Your task to perform on an android device: turn on location history Image 0: 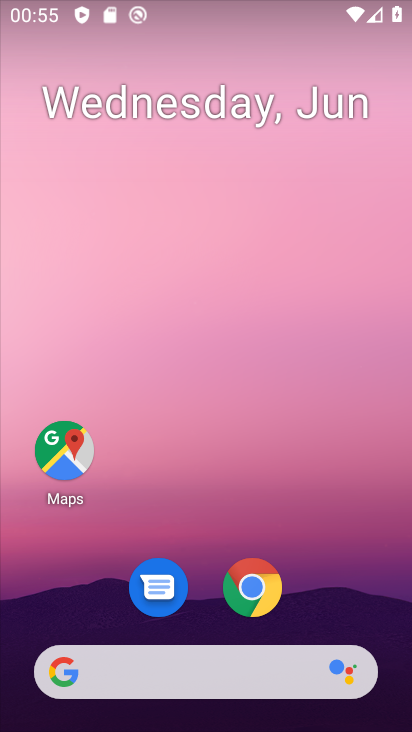
Step 0: drag from (326, 596) to (280, 111)
Your task to perform on an android device: turn on location history Image 1: 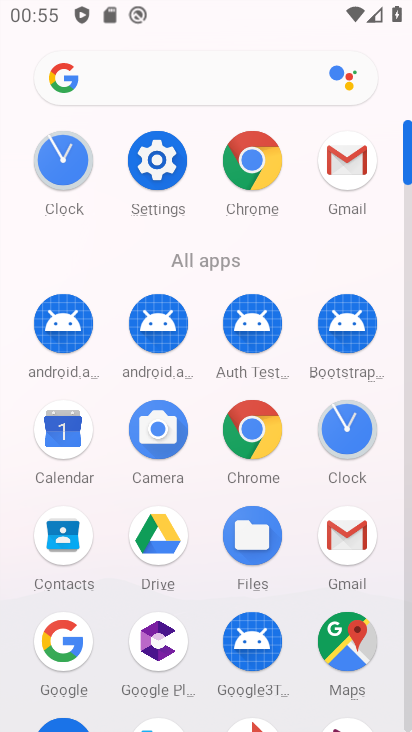
Step 1: click (162, 169)
Your task to perform on an android device: turn on location history Image 2: 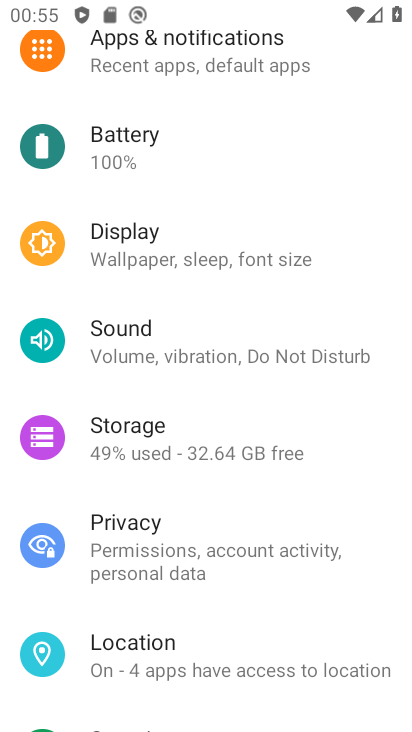
Step 2: drag from (251, 601) to (213, 119)
Your task to perform on an android device: turn on location history Image 3: 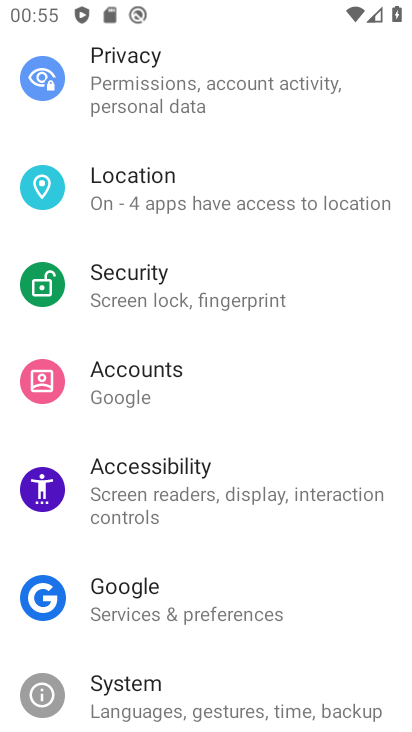
Step 3: click (179, 196)
Your task to perform on an android device: turn on location history Image 4: 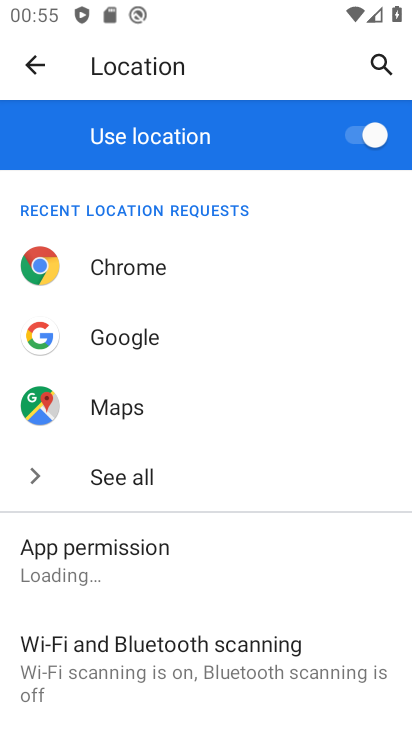
Step 4: drag from (260, 605) to (245, 125)
Your task to perform on an android device: turn on location history Image 5: 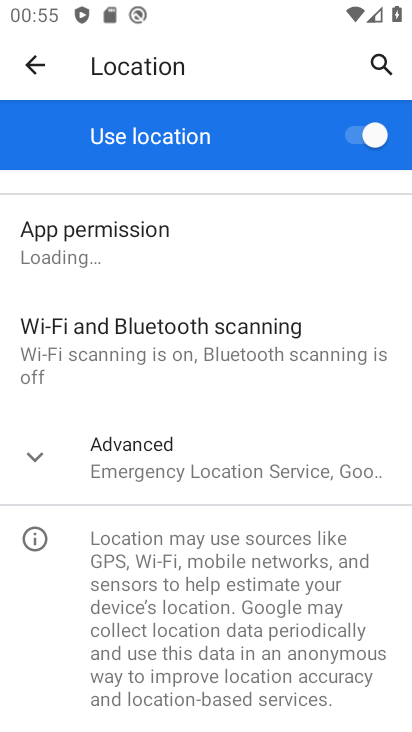
Step 5: click (188, 439)
Your task to perform on an android device: turn on location history Image 6: 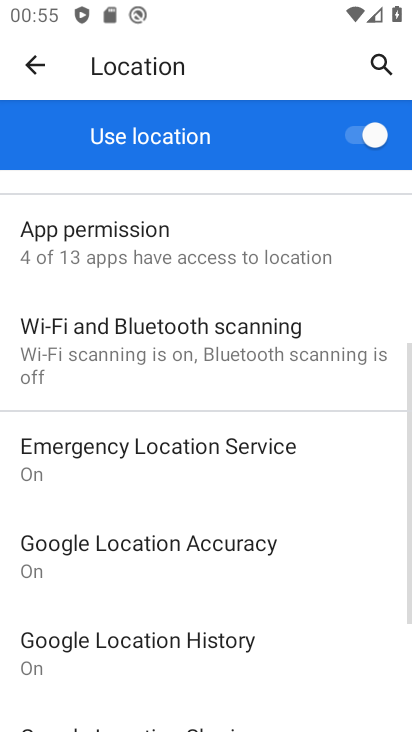
Step 6: click (225, 634)
Your task to perform on an android device: turn on location history Image 7: 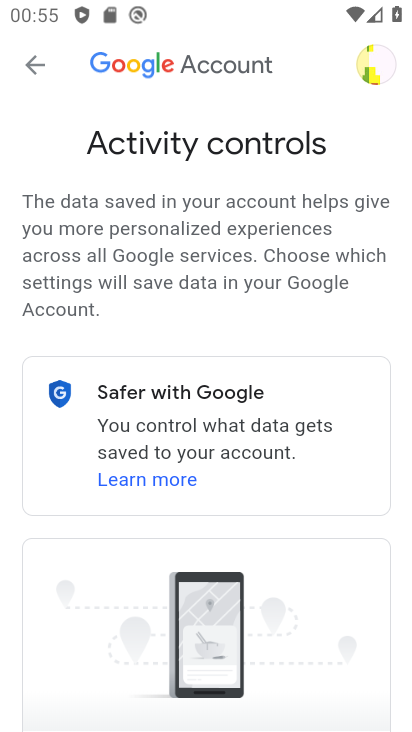
Step 7: drag from (275, 497) to (275, 8)
Your task to perform on an android device: turn on location history Image 8: 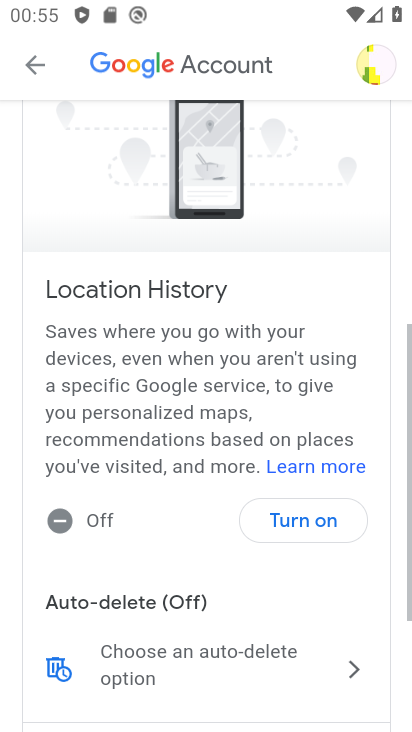
Step 8: drag from (278, 519) to (266, 232)
Your task to perform on an android device: turn on location history Image 9: 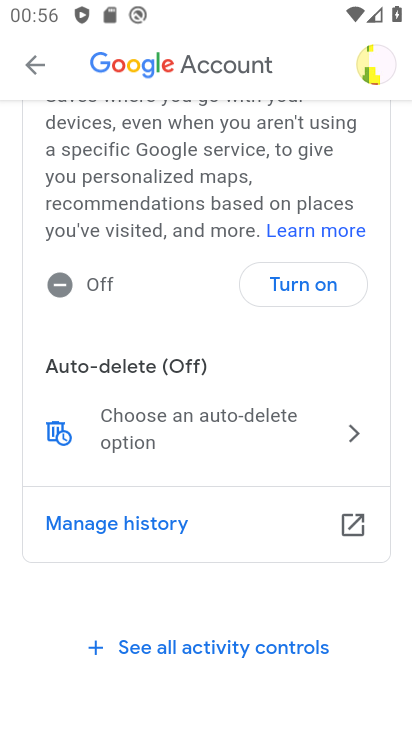
Step 9: click (309, 295)
Your task to perform on an android device: turn on location history Image 10: 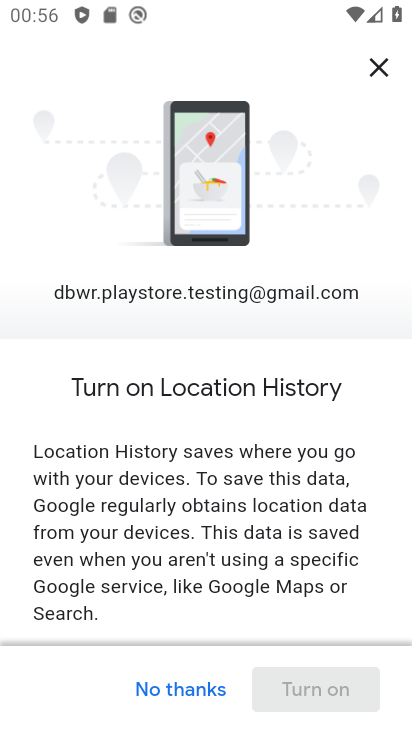
Step 10: drag from (282, 495) to (290, 8)
Your task to perform on an android device: turn on location history Image 11: 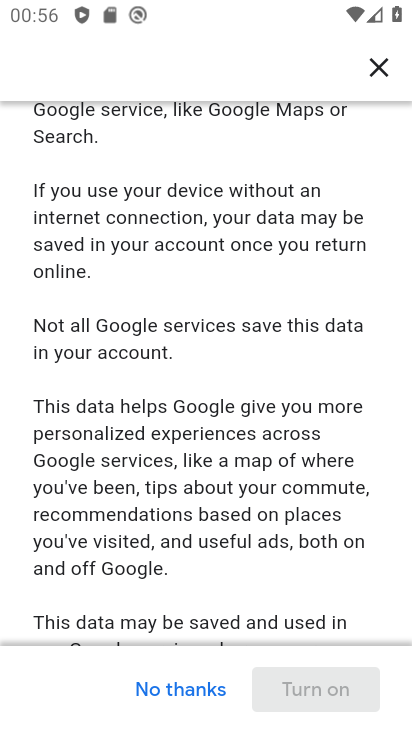
Step 11: drag from (333, 401) to (347, 4)
Your task to perform on an android device: turn on location history Image 12: 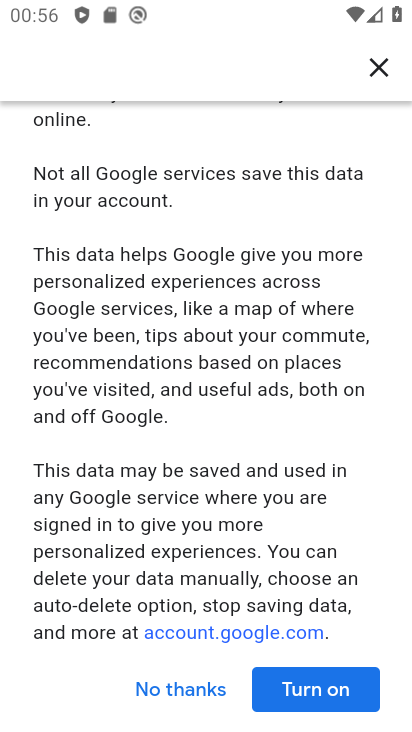
Step 12: click (359, 691)
Your task to perform on an android device: turn on location history Image 13: 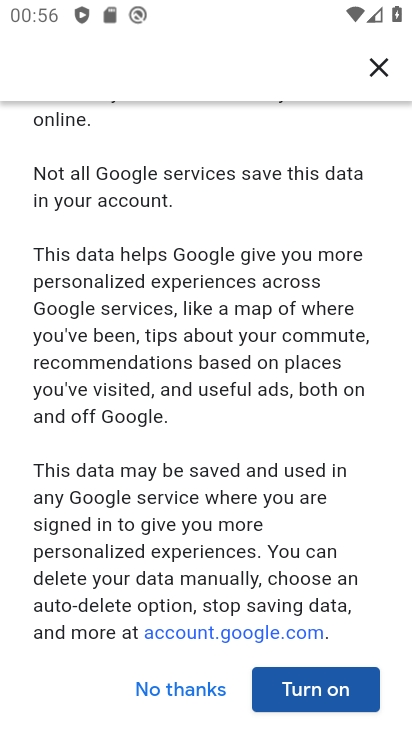
Step 13: click (333, 688)
Your task to perform on an android device: turn on location history Image 14: 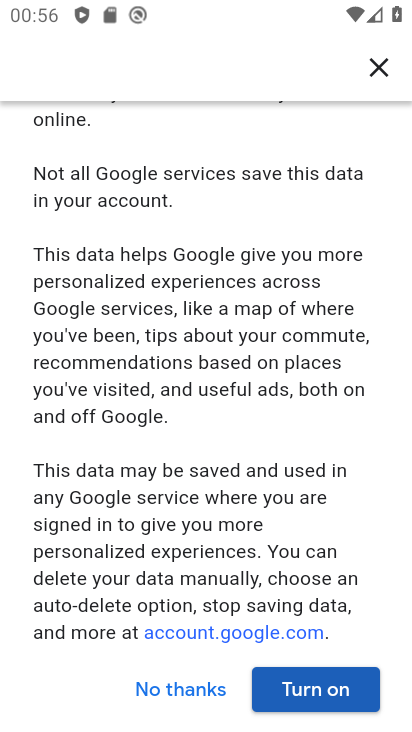
Step 14: click (304, 679)
Your task to perform on an android device: turn on location history Image 15: 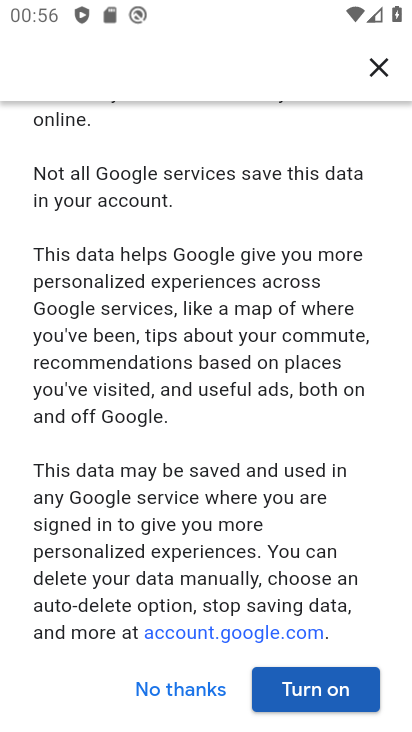
Step 15: click (313, 680)
Your task to perform on an android device: turn on location history Image 16: 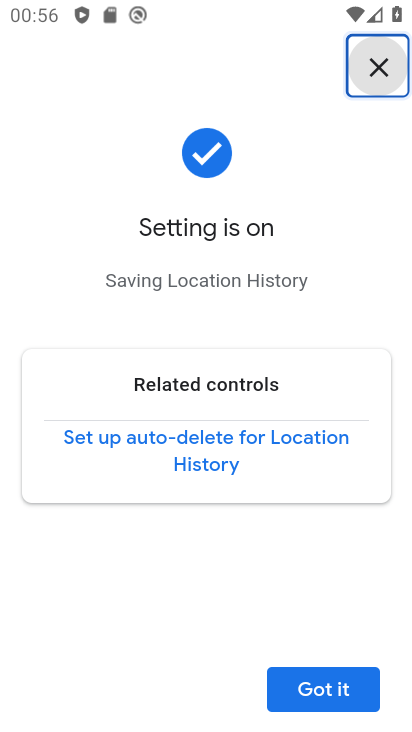
Step 16: task complete